Your task to perform on an android device: toggle notifications settings in the gmail app Image 0: 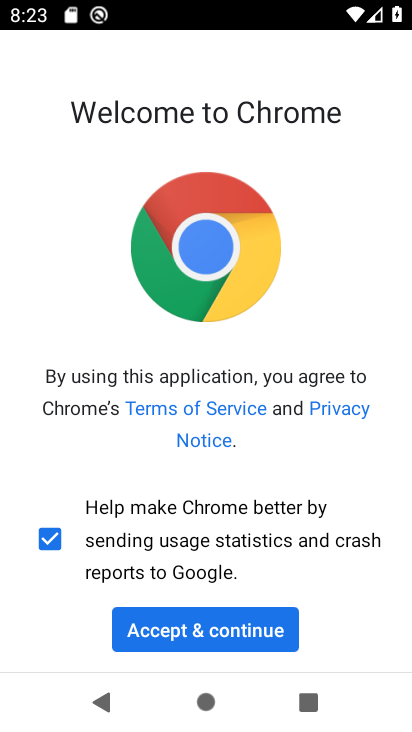
Step 0: press home button
Your task to perform on an android device: toggle notifications settings in the gmail app Image 1: 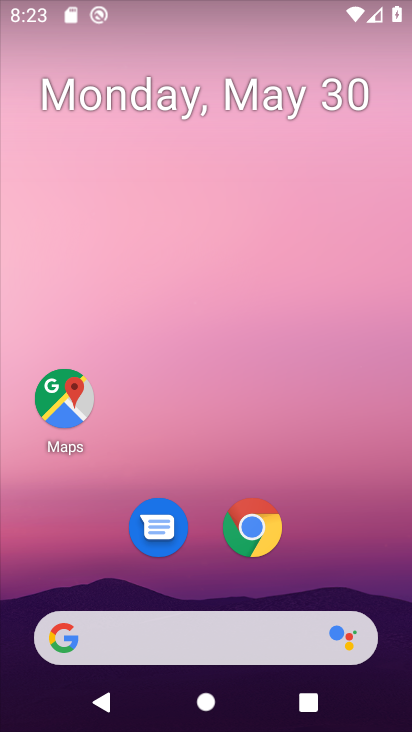
Step 1: drag from (307, 549) to (247, 170)
Your task to perform on an android device: toggle notifications settings in the gmail app Image 2: 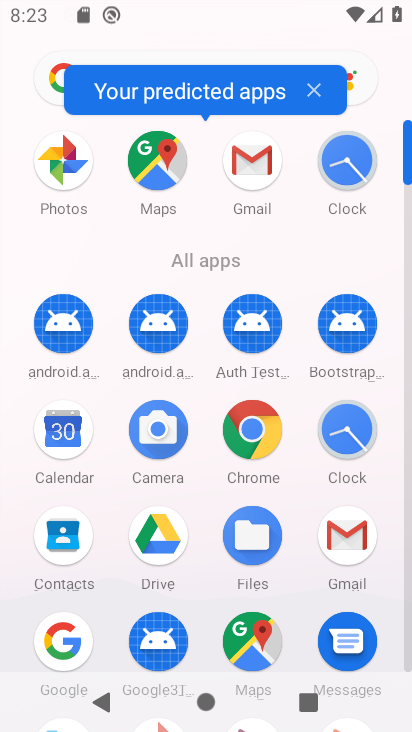
Step 2: click (360, 523)
Your task to perform on an android device: toggle notifications settings in the gmail app Image 3: 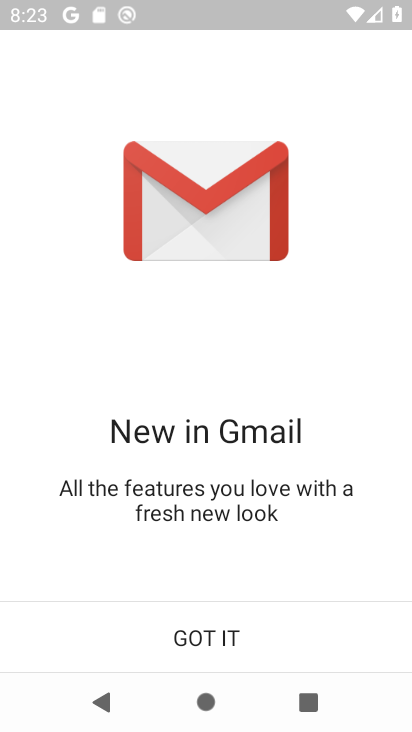
Step 3: click (214, 634)
Your task to perform on an android device: toggle notifications settings in the gmail app Image 4: 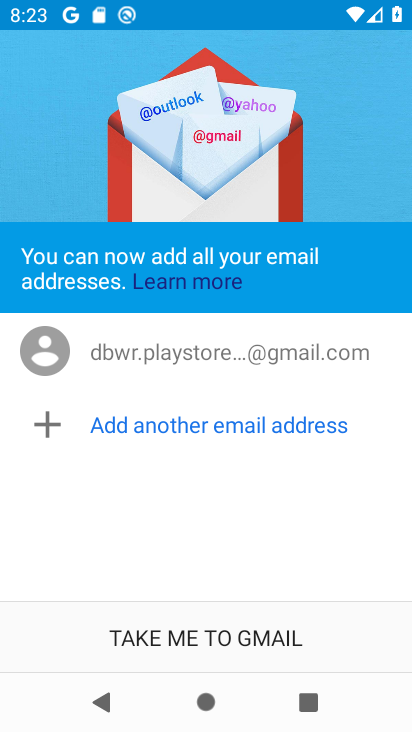
Step 4: click (220, 633)
Your task to perform on an android device: toggle notifications settings in the gmail app Image 5: 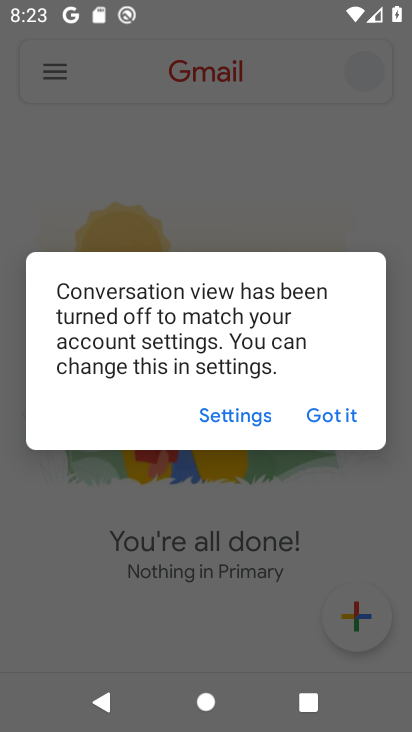
Step 5: click (340, 413)
Your task to perform on an android device: toggle notifications settings in the gmail app Image 6: 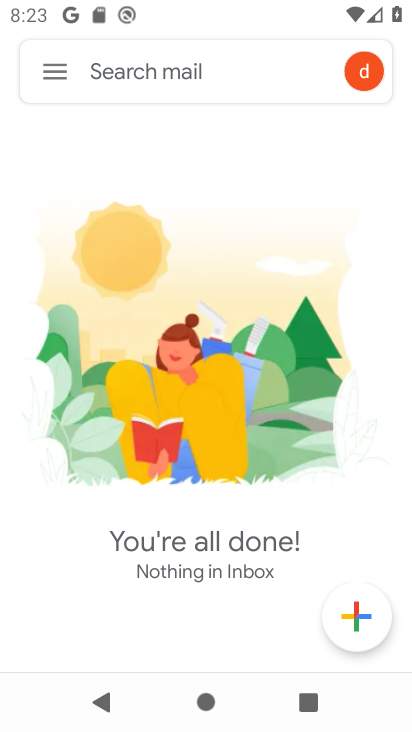
Step 6: click (53, 66)
Your task to perform on an android device: toggle notifications settings in the gmail app Image 7: 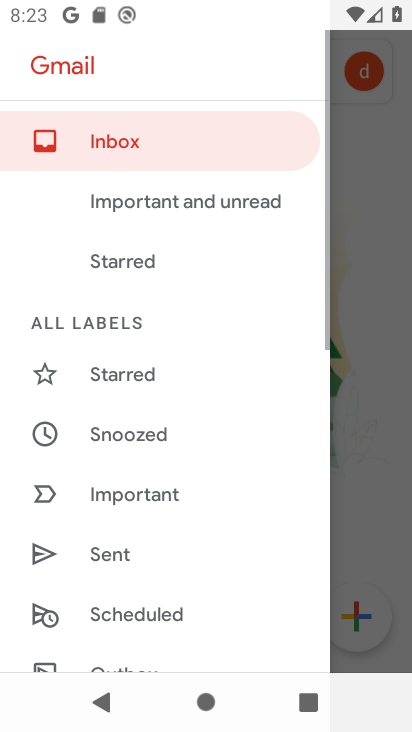
Step 7: drag from (182, 601) to (176, 212)
Your task to perform on an android device: toggle notifications settings in the gmail app Image 8: 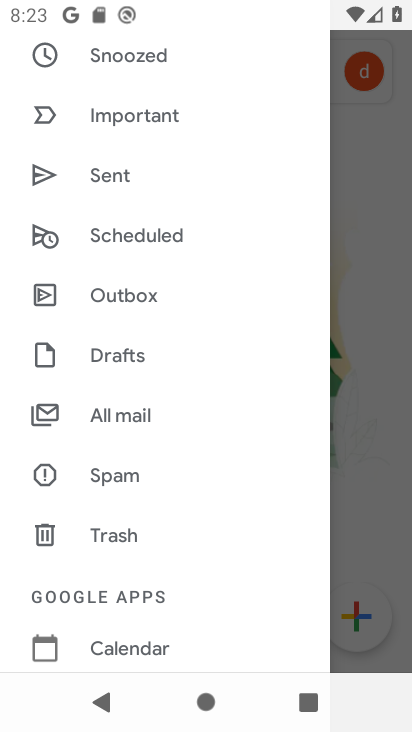
Step 8: drag from (160, 536) to (135, 168)
Your task to perform on an android device: toggle notifications settings in the gmail app Image 9: 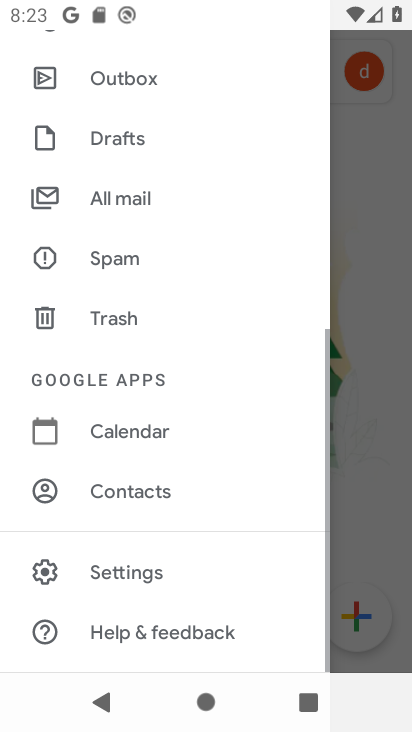
Step 9: click (160, 568)
Your task to perform on an android device: toggle notifications settings in the gmail app Image 10: 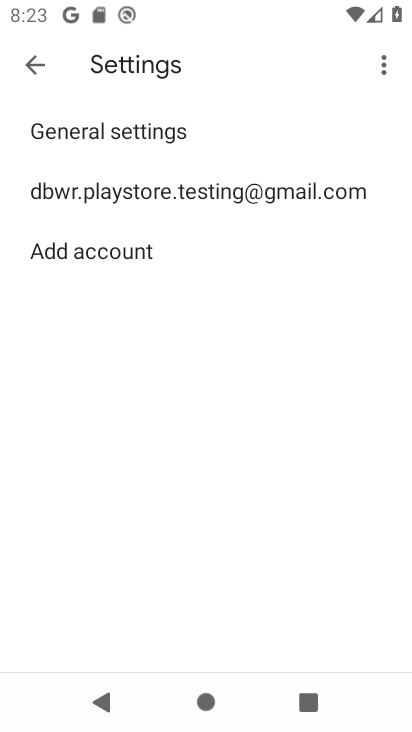
Step 10: click (147, 184)
Your task to perform on an android device: toggle notifications settings in the gmail app Image 11: 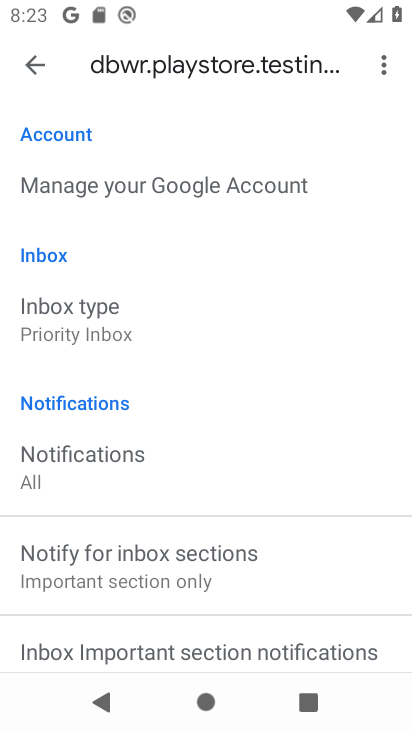
Step 11: click (149, 494)
Your task to perform on an android device: toggle notifications settings in the gmail app Image 12: 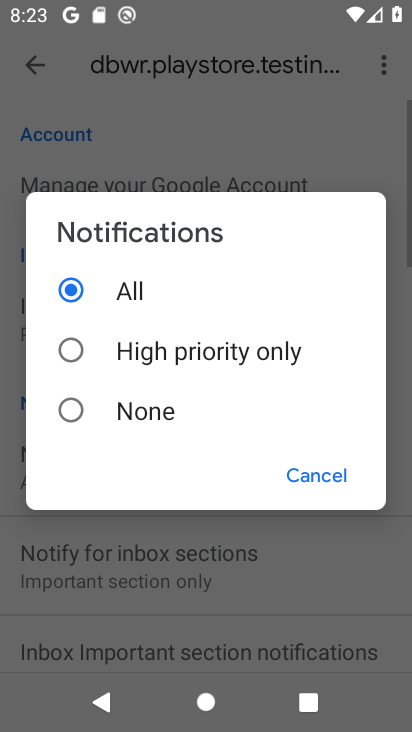
Step 12: click (162, 425)
Your task to perform on an android device: toggle notifications settings in the gmail app Image 13: 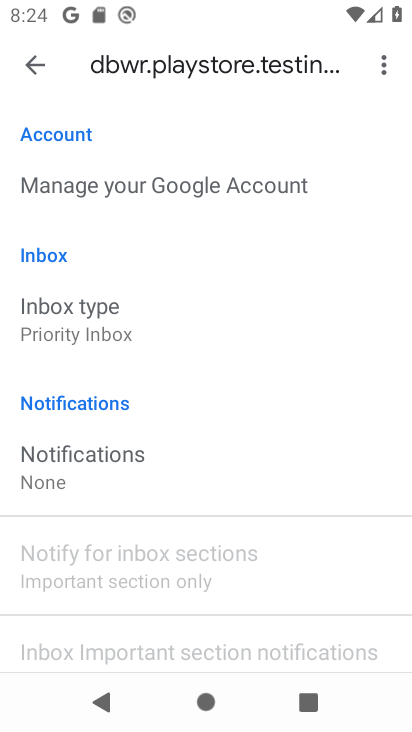
Step 13: task complete